Your task to perform on an android device: What is the news today? Image 0: 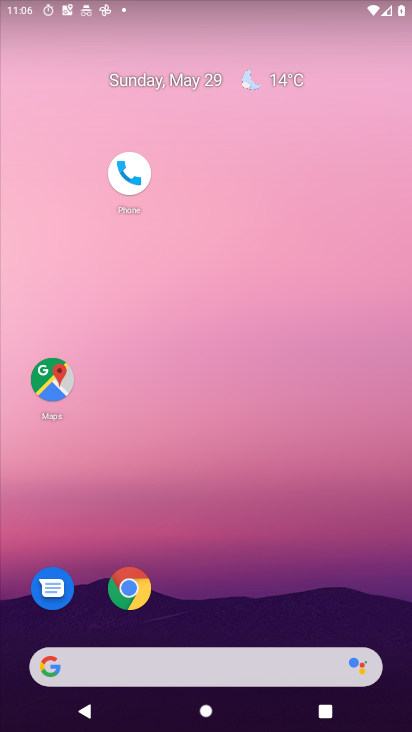
Step 0: drag from (274, 707) to (278, 246)
Your task to perform on an android device: What is the news today? Image 1: 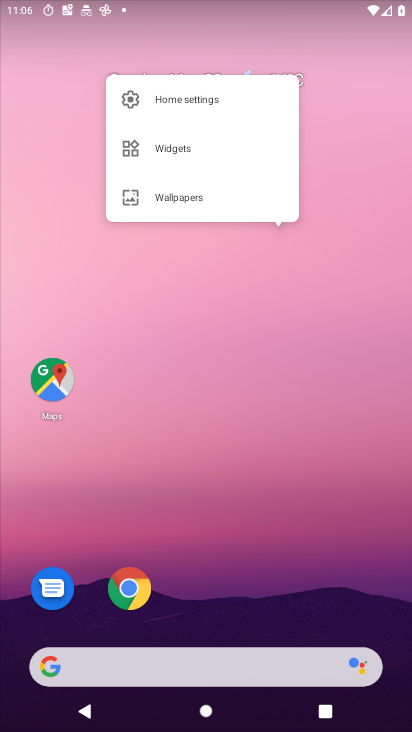
Step 1: task complete